Your task to perform on an android device: uninstall "Reddit" Image 0: 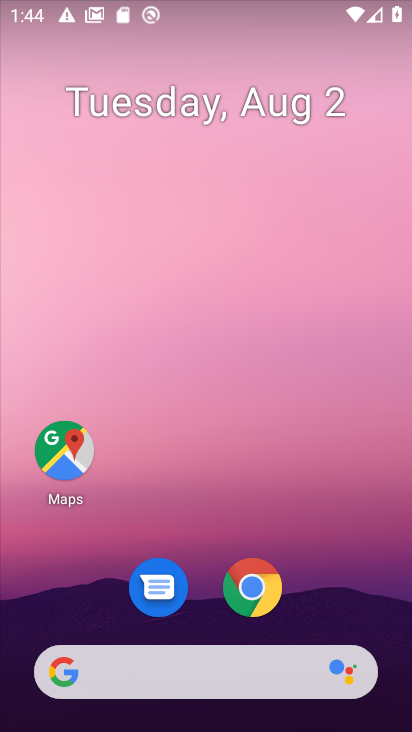
Step 0: drag from (202, 518) to (188, 103)
Your task to perform on an android device: uninstall "Reddit" Image 1: 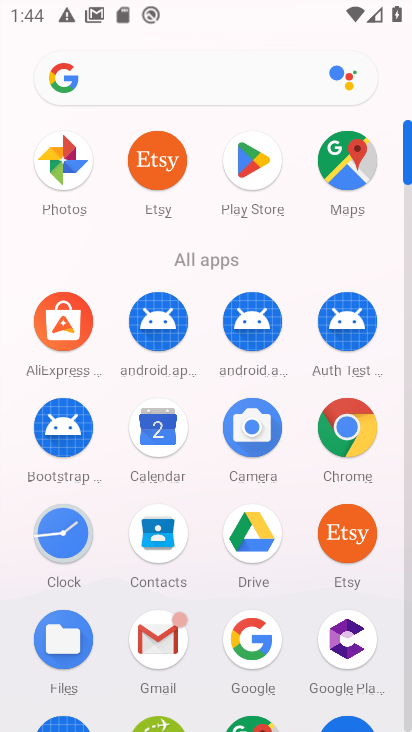
Step 1: click (264, 169)
Your task to perform on an android device: uninstall "Reddit" Image 2: 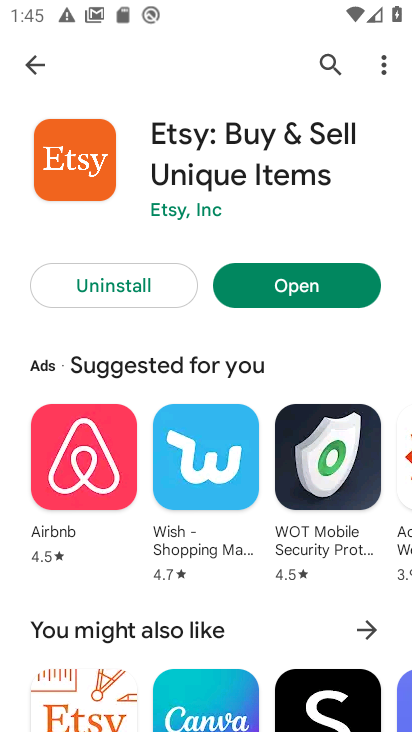
Step 2: click (321, 57)
Your task to perform on an android device: uninstall "Reddit" Image 3: 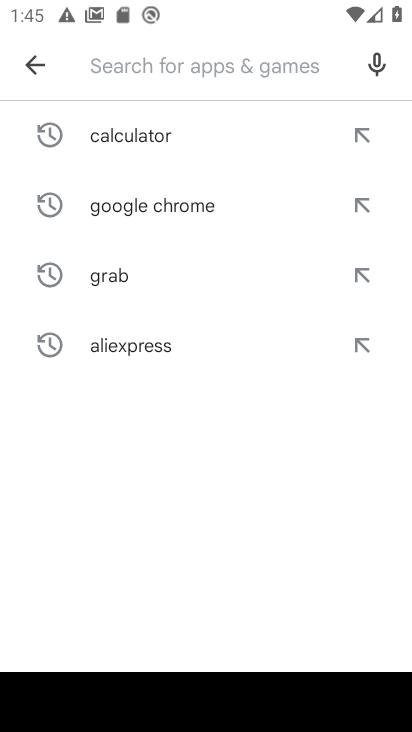
Step 3: type "Reddit"
Your task to perform on an android device: uninstall "Reddit" Image 4: 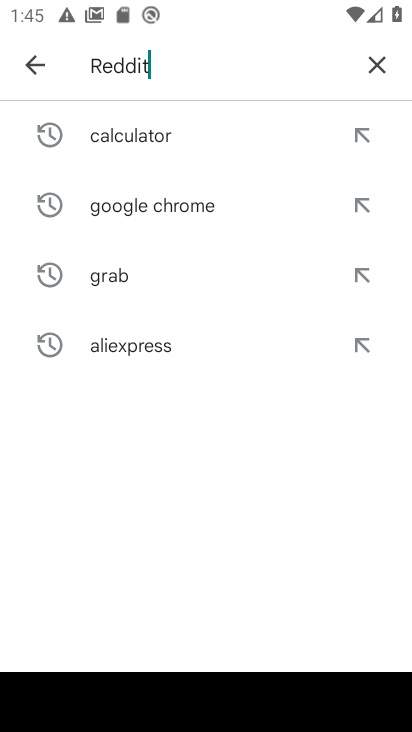
Step 4: type ""
Your task to perform on an android device: uninstall "Reddit" Image 5: 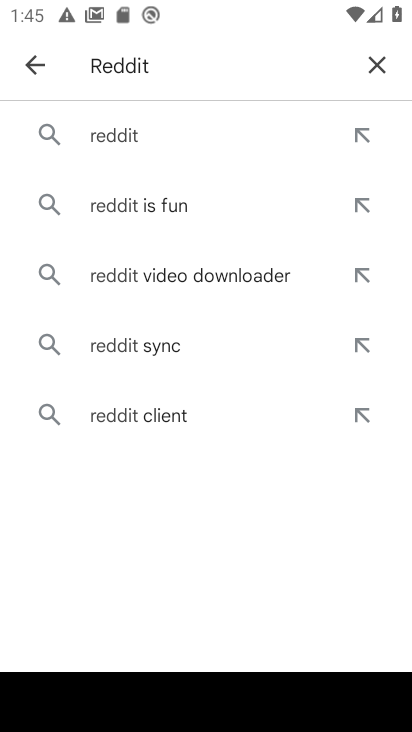
Step 5: click (104, 138)
Your task to perform on an android device: uninstall "Reddit" Image 6: 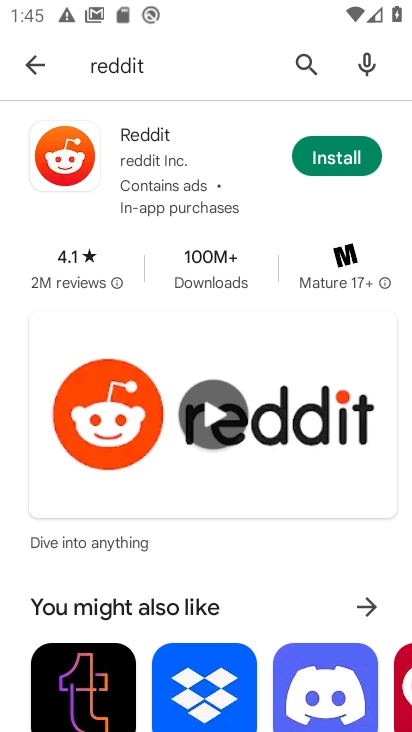
Step 6: task complete